Your task to perform on an android device: add a contact in the contacts app Image 0: 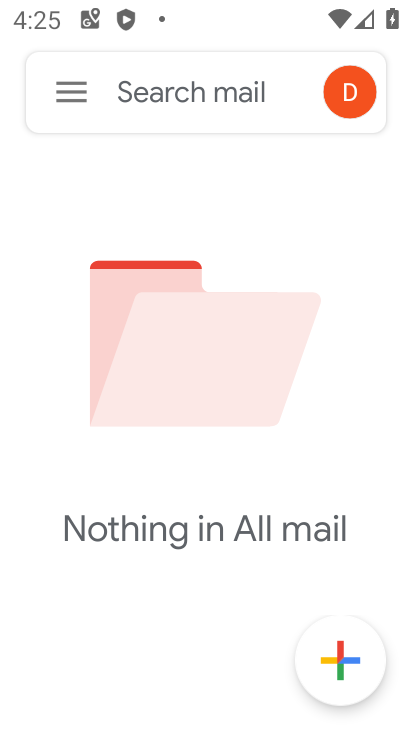
Step 0: press home button
Your task to perform on an android device: add a contact in the contacts app Image 1: 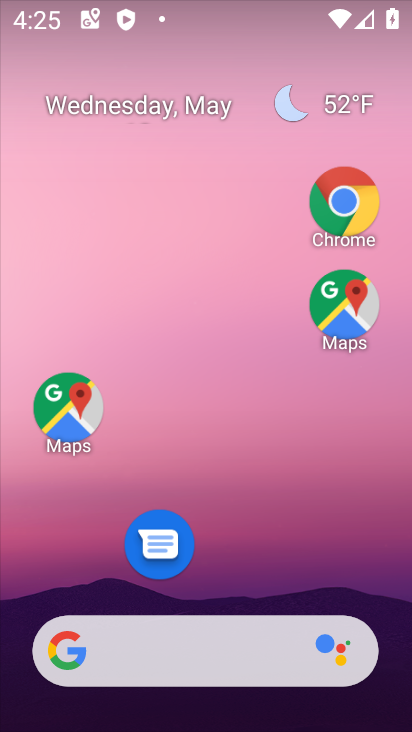
Step 1: drag from (237, 546) to (244, 198)
Your task to perform on an android device: add a contact in the contacts app Image 2: 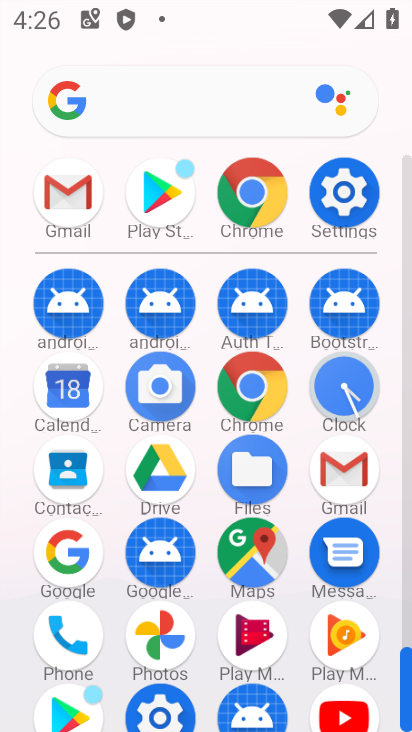
Step 2: click (71, 485)
Your task to perform on an android device: add a contact in the contacts app Image 3: 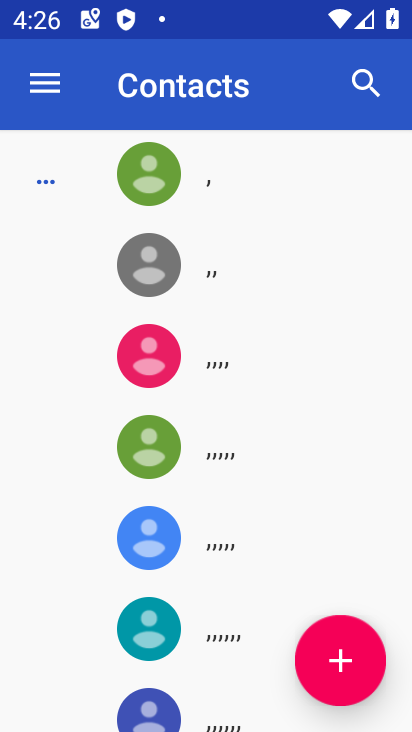
Step 3: click (332, 675)
Your task to perform on an android device: add a contact in the contacts app Image 4: 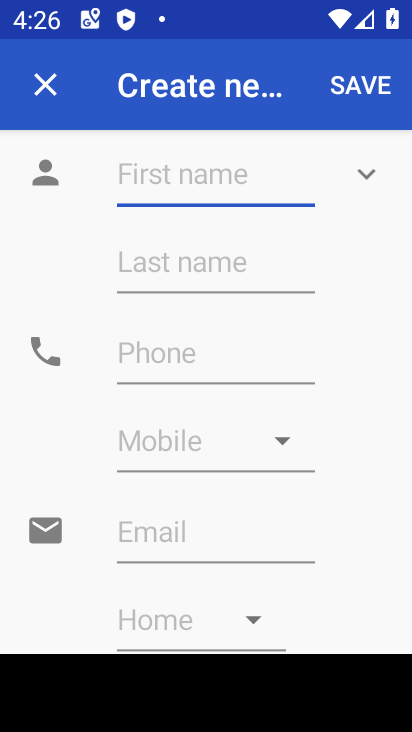
Step 4: click (183, 212)
Your task to perform on an android device: add a contact in the contacts app Image 5: 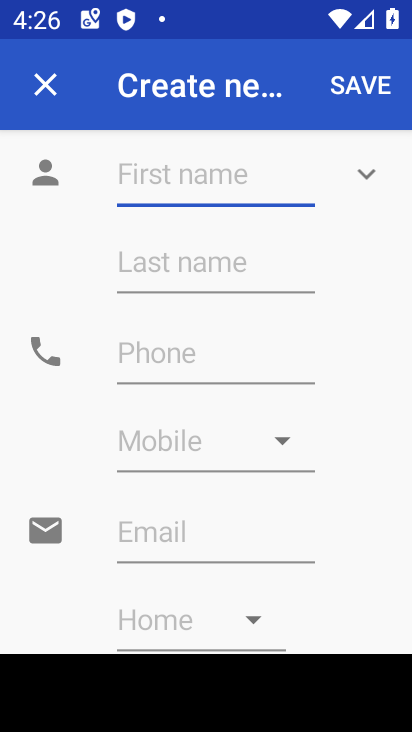
Step 5: click (185, 192)
Your task to perform on an android device: add a contact in the contacts app Image 6: 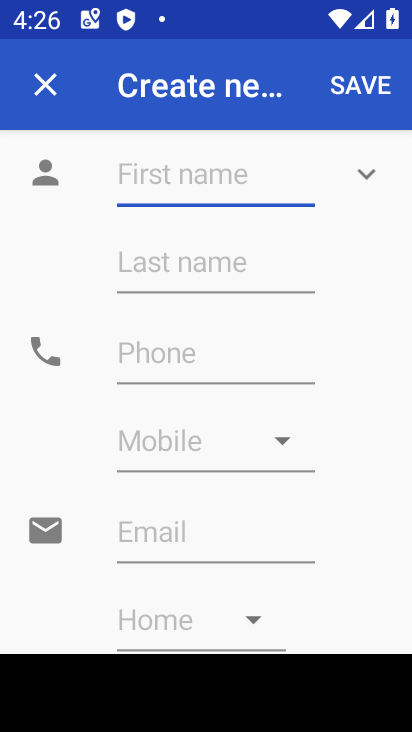
Step 6: type "sana"
Your task to perform on an android device: add a contact in the contacts app Image 7: 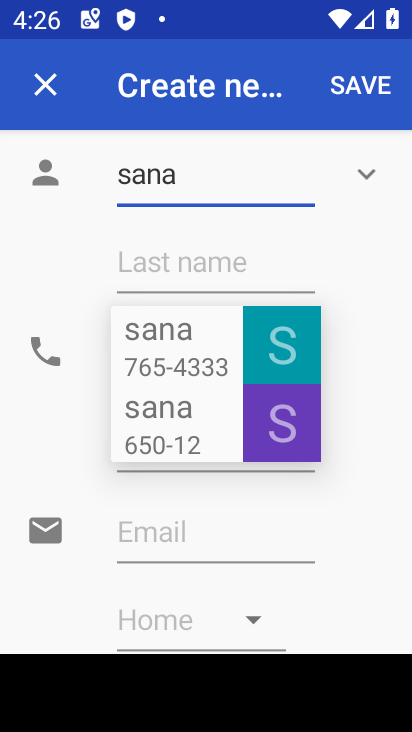
Step 7: click (184, 266)
Your task to perform on an android device: add a contact in the contacts app Image 8: 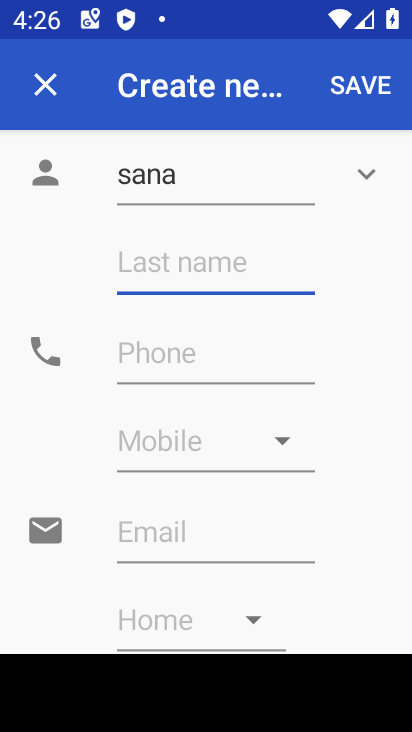
Step 8: type "qureshi"
Your task to perform on an android device: add a contact in the contacts app Image 9: 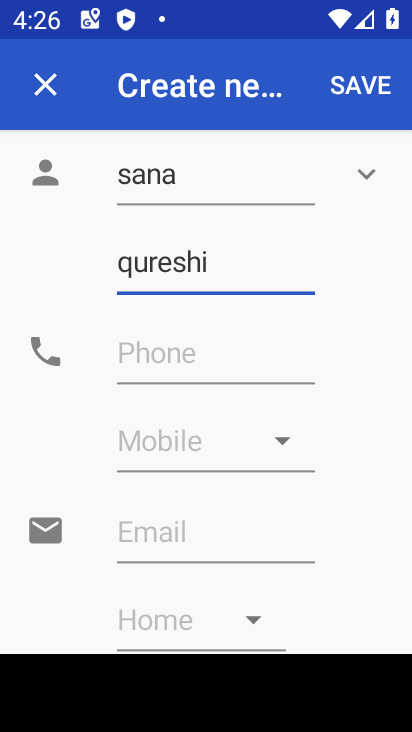
Step 9: click (250, 366)
Your task to perform on an android device: add a contact in the contacts app Image 10: 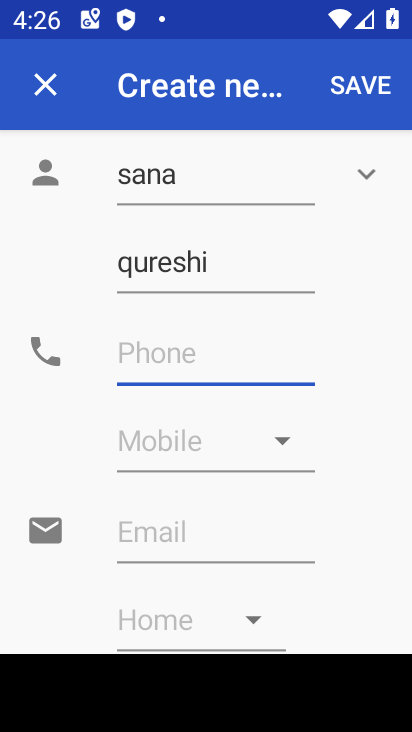
Step 10: type "8989989889"
Your task to perform on an android device: add a contact in the contacts app Image 11: 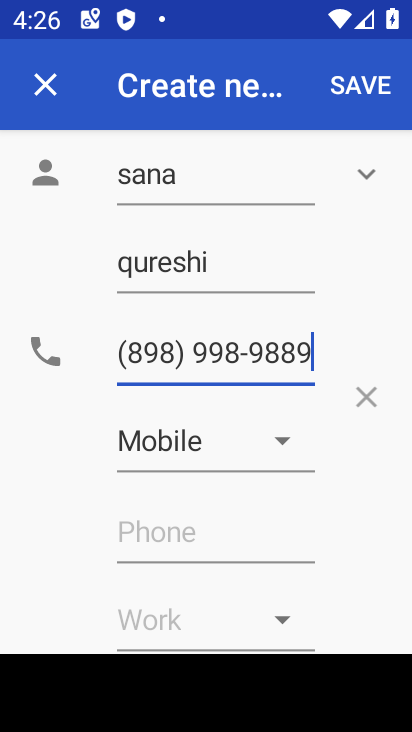
Step 11: click (371, 81)
Your task to perform on an android device: add a contact in the contacts app Image 12: 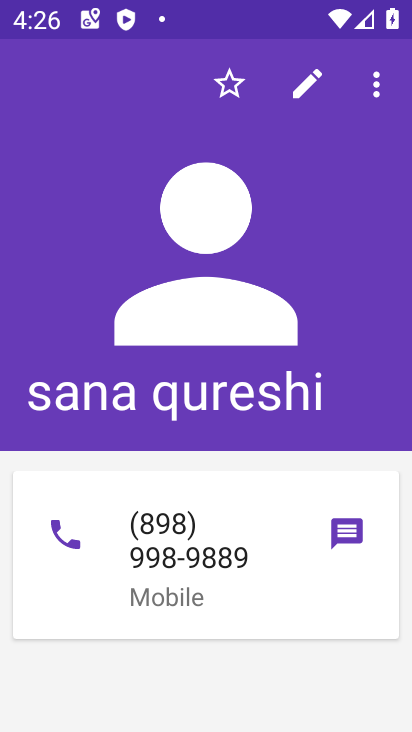
Step 12: task complete